Your task to perform on an android device: Go to Google Image 0: 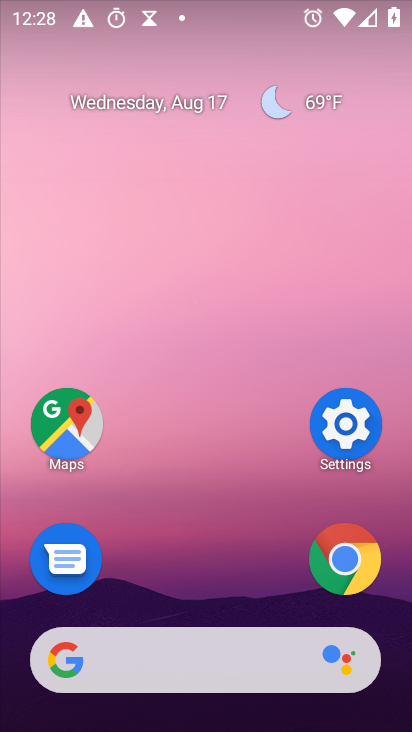
Step 0: drag from (201, 629) to (332, 109)
Your task to perform on an android device: Go to Google Image 1: 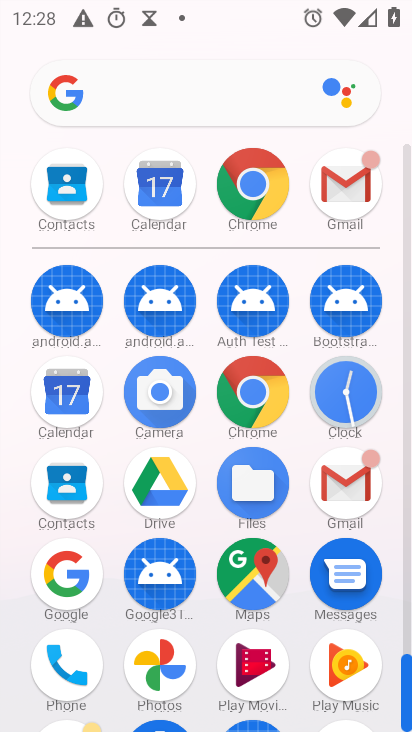
Step 1: click (64, 587)
Your task to perform on an android device: Go to Google Image 2: 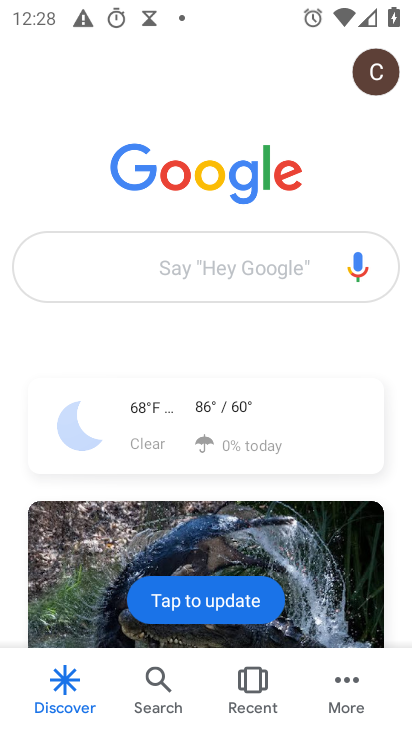
Step 2: task complete